Your task to perform on an android device: open app "ColorNote Notepad Notes" (install if not already installed) and go to login screen Image 0: 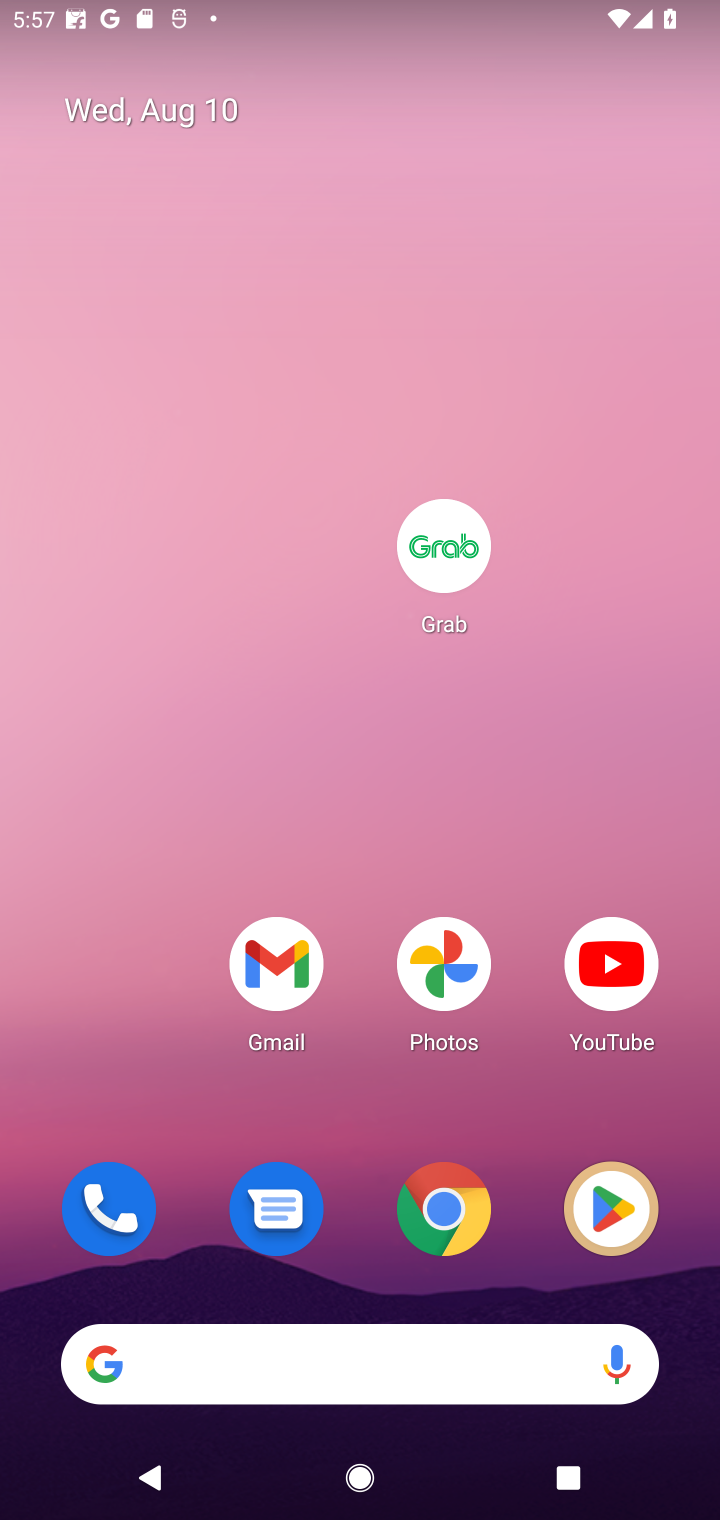
Step 0: click (616, 1192)
Your task to perform on an android device: open app "ColorNote Notepad Notes" (install if not already installed) and go to login screen Image 1: 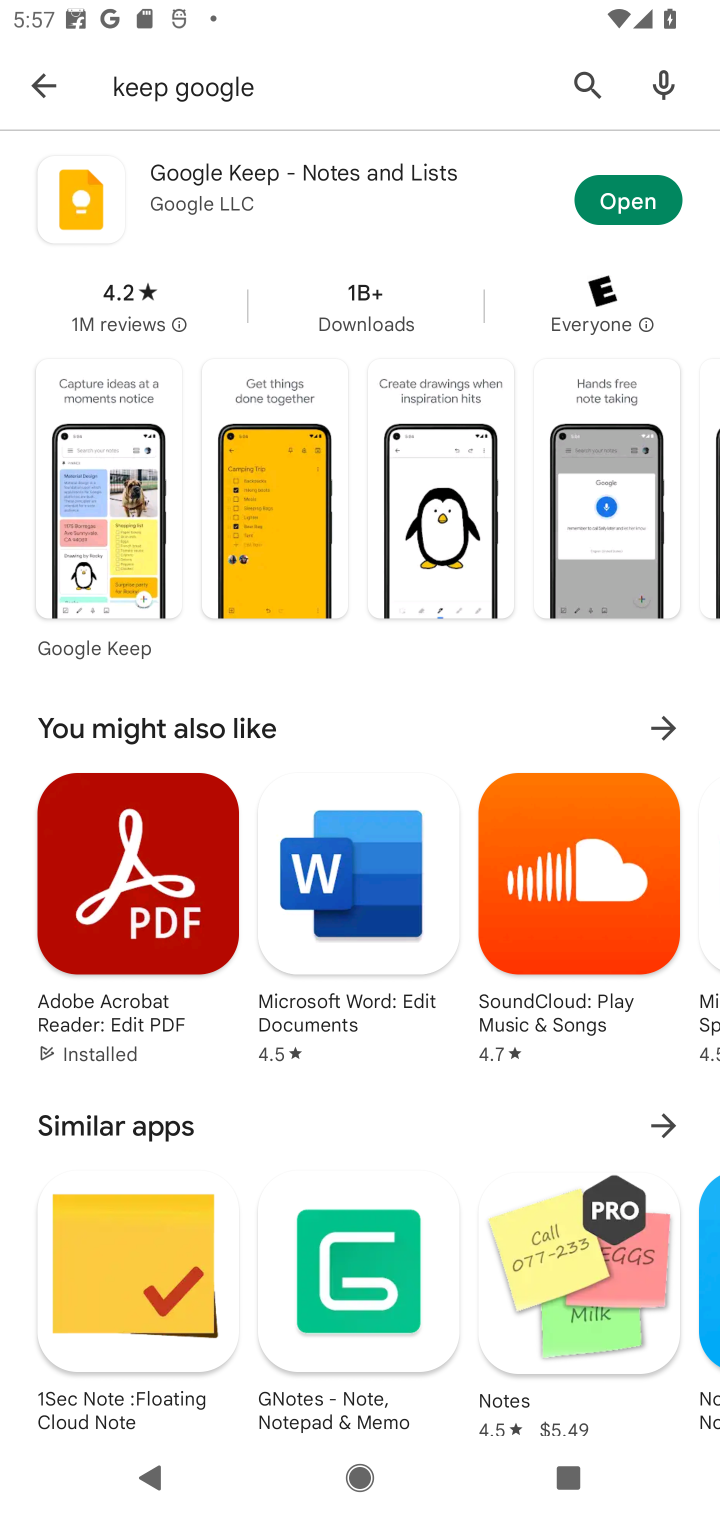
Step 1: click (556, 102)
Your task to perform on an android device: open app "ColorNote Notepad Notes" (install if not already installed) and go to login screen Image 2: 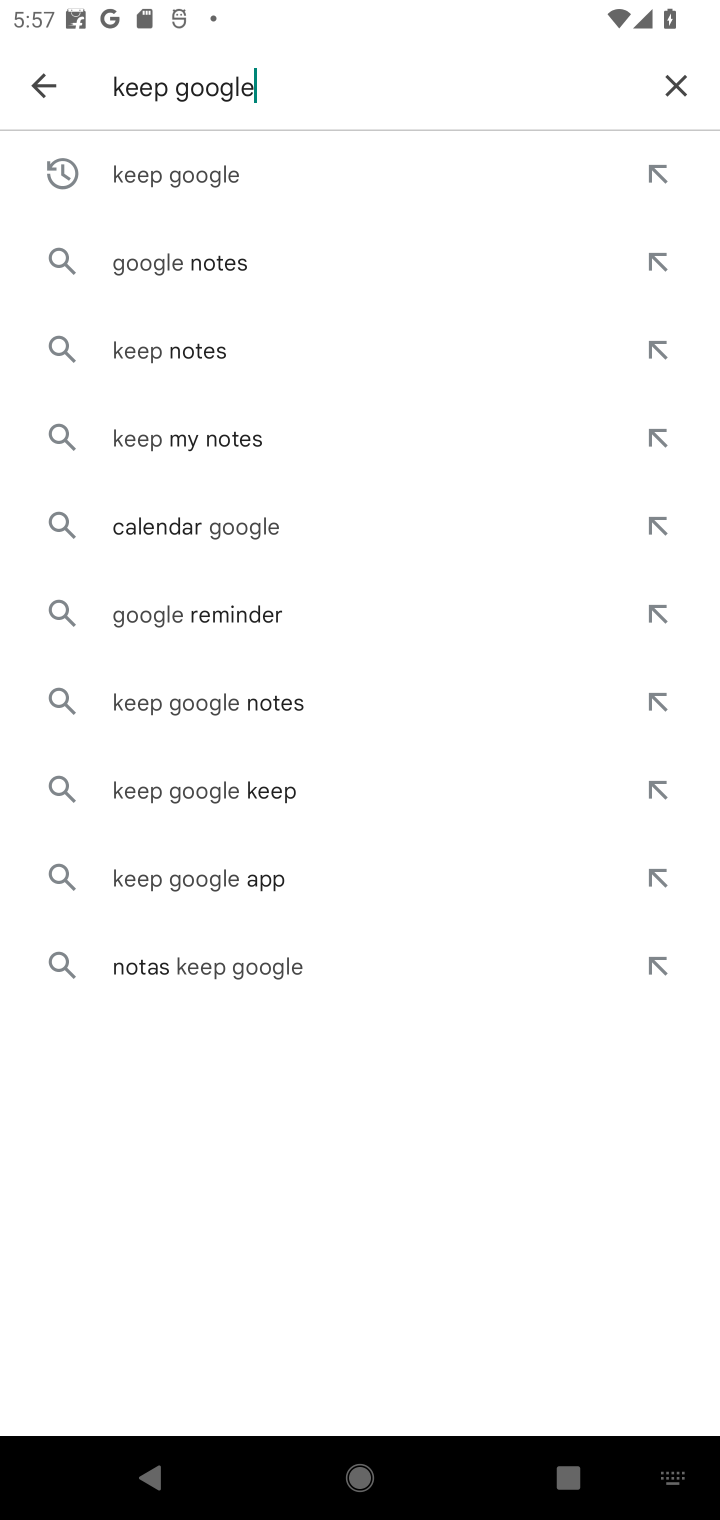
Step 2: click (674, 102)
Your task to perform on an android device: open app "ColorNote Notepad Notes" (install if not already installed) and go to login screen Image 3: 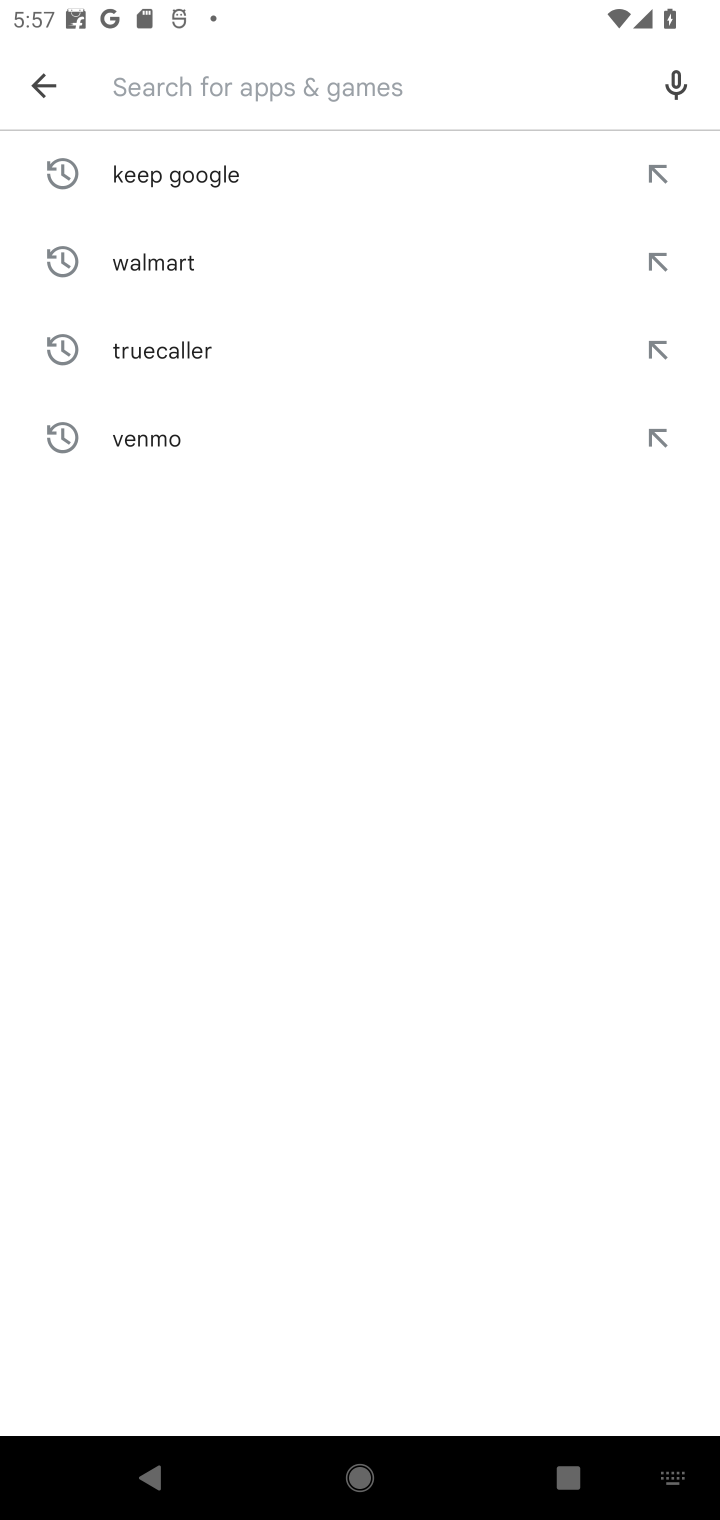
Step 3: type "color notpad"
Your task to perform on an android device: open app "ColorNote Notepad Notes" (install if not already installed) and go to login screen Image 4: 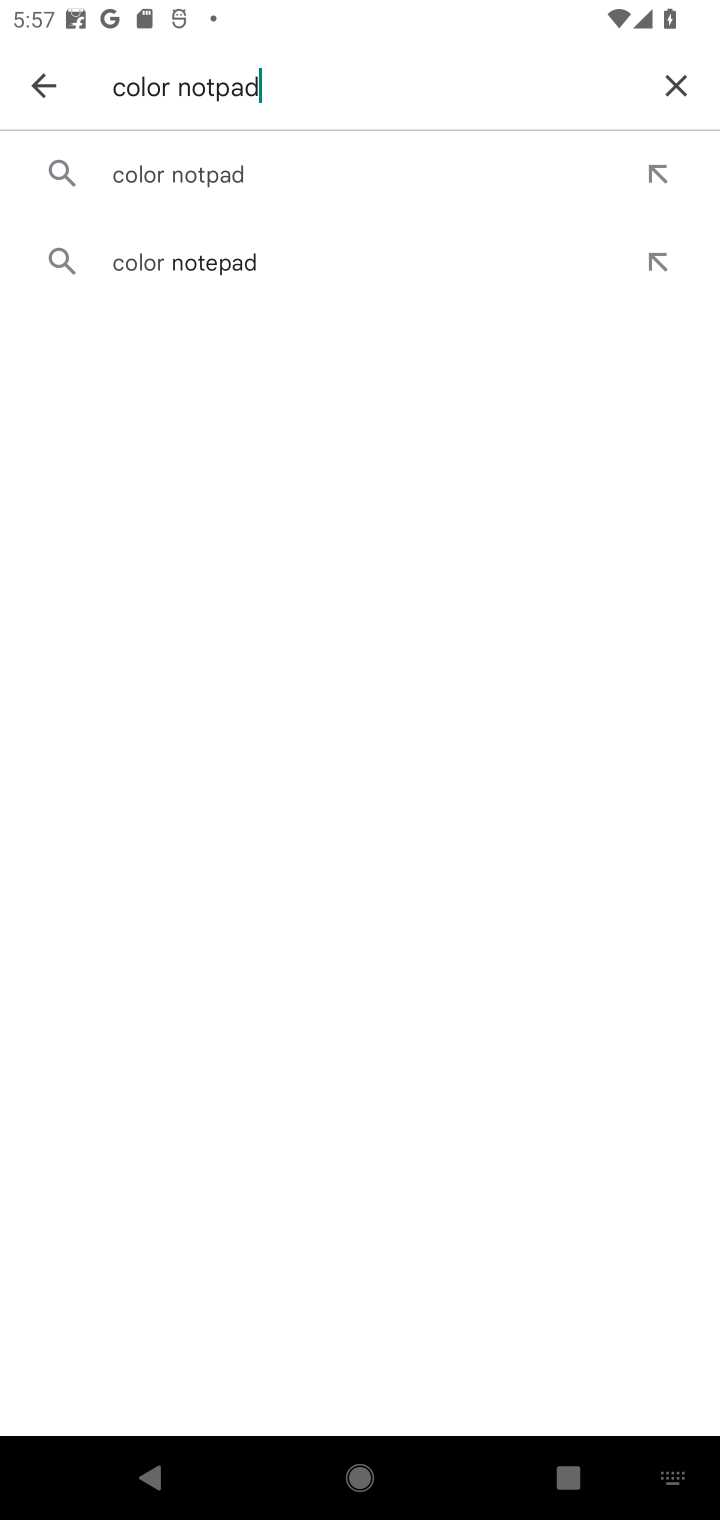
Step 4: click (267, 183)
Your task to perform on an android device: open app "ColorNote Notepad Notes" (install if not already installed) and go to login screen Image 5: 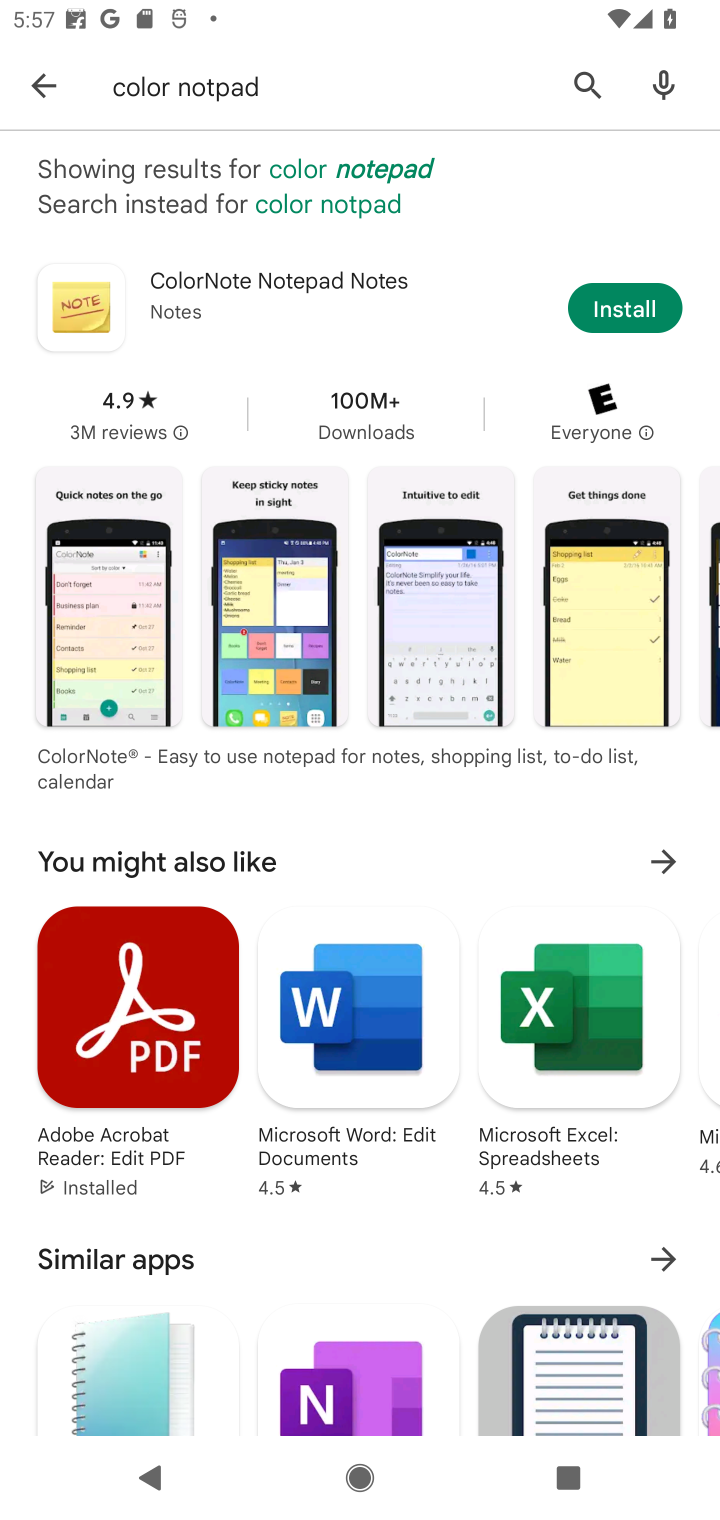
Step 5: click (603, 285)
Your task to perform on an android device: open app "ColorNote Notepad Notes" (install if not already installed) and go to login screen Image 6: 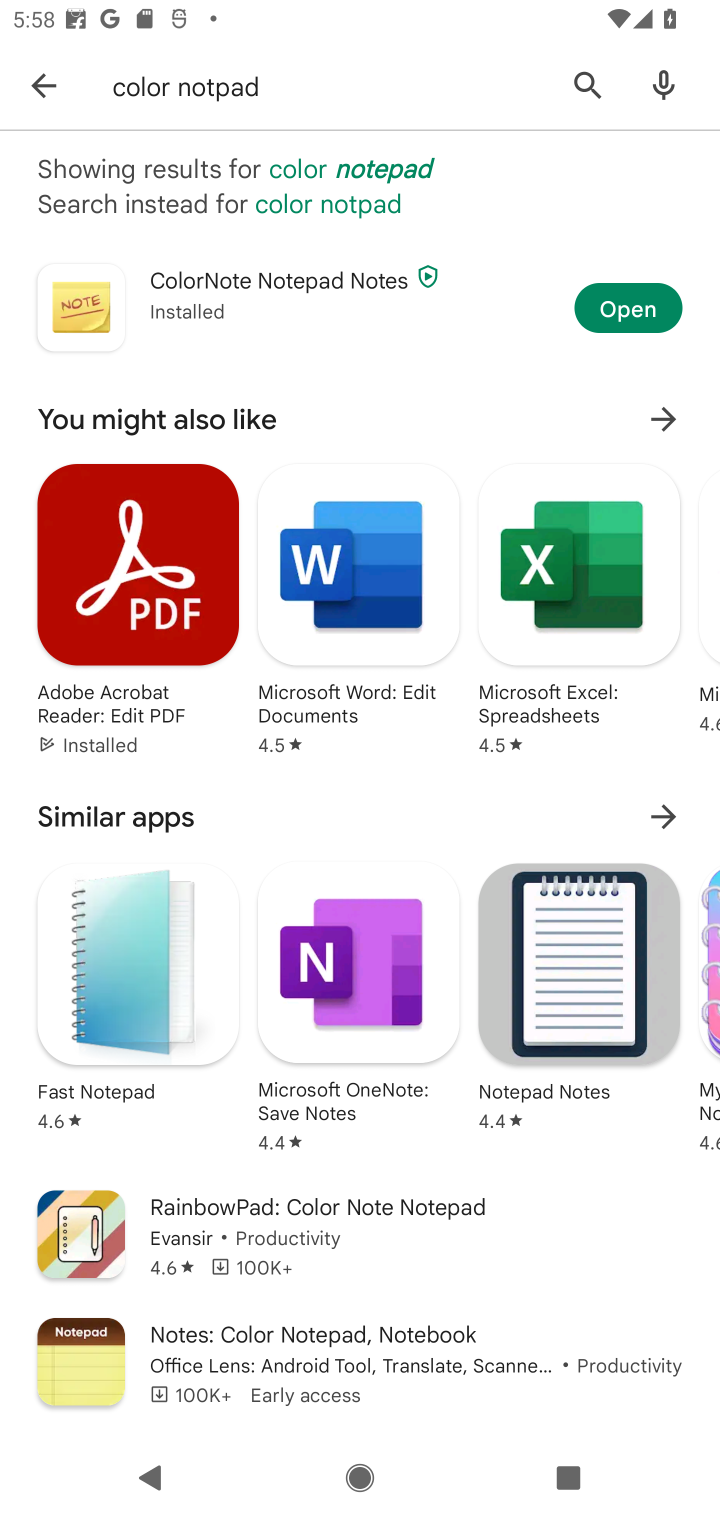
Step 6: click (629, 334)
Your task to perform on an android device: open app "ColorNote Notepad Notes" (install if not already installed) and go to login screen Image 7: 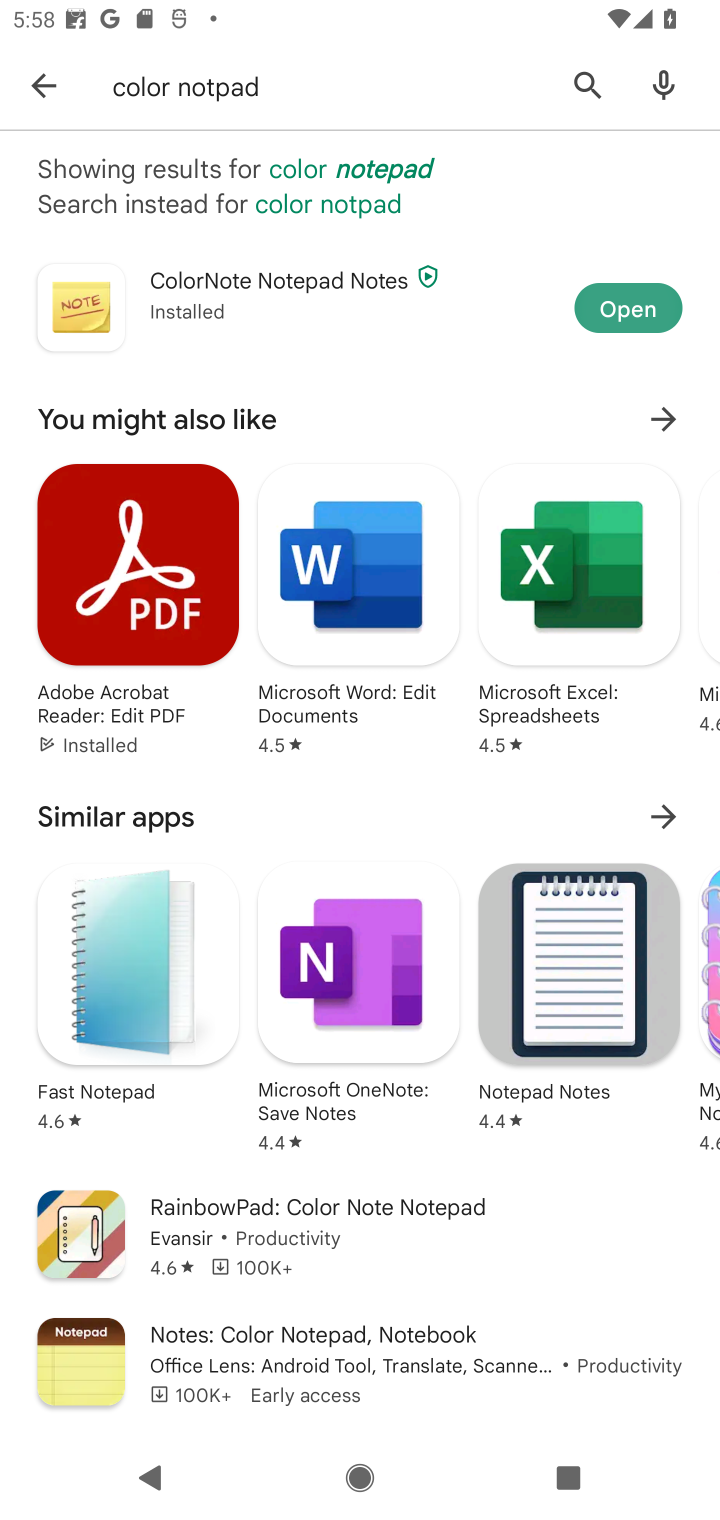
Step 7: task complete